Your task to perform on an android device: turn on airplane mode Image 0: 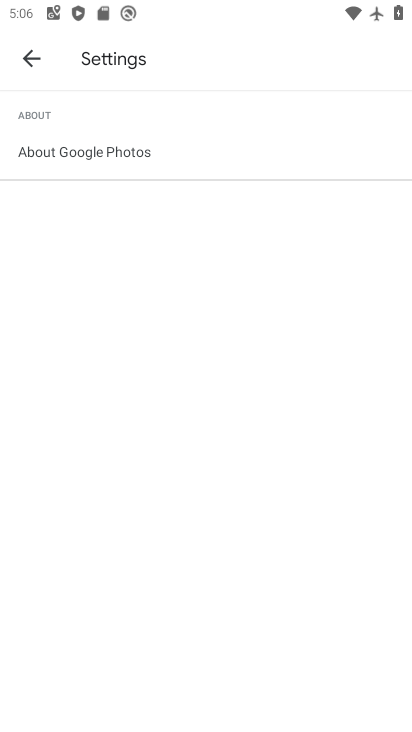
Step 0: press home button
Your task to perform on an android device: turn on airplane mode Image 1: 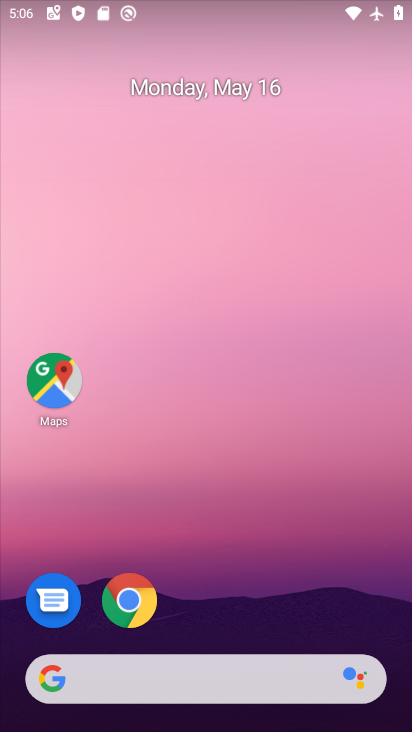
Step 1: drag from (189, 627) to (116, 14)
Your task to perform on an android device: turn on airplane mode Image 2: 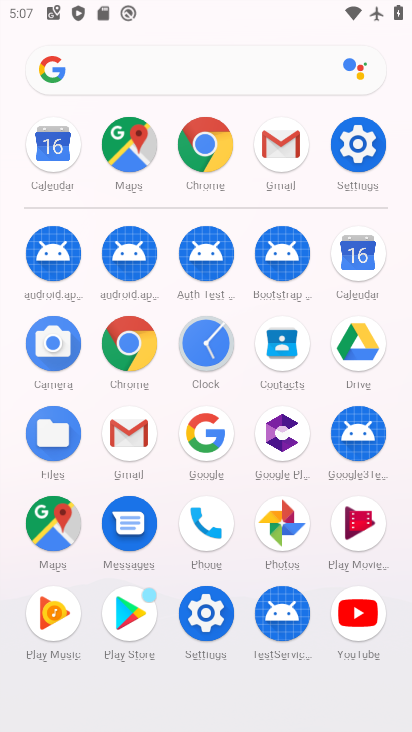
Step 2: click (349, 130)
Your task to perform on an android device: turn on airplane mode Image 3: 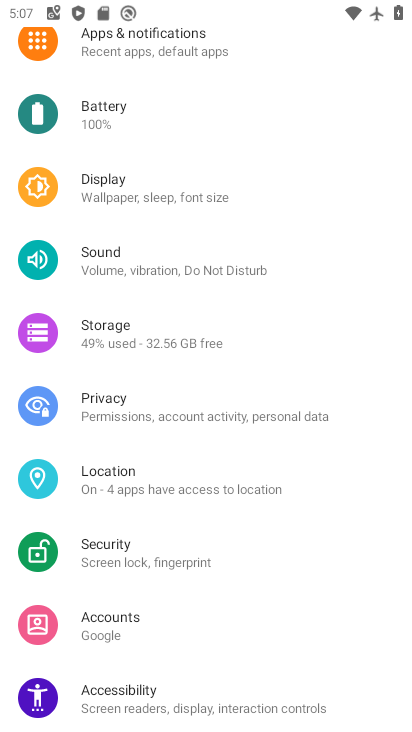
Step 3: drag from (147, 155) to (161, 623)
Your task to perform on an android device: turn on airplane mode Image 4: 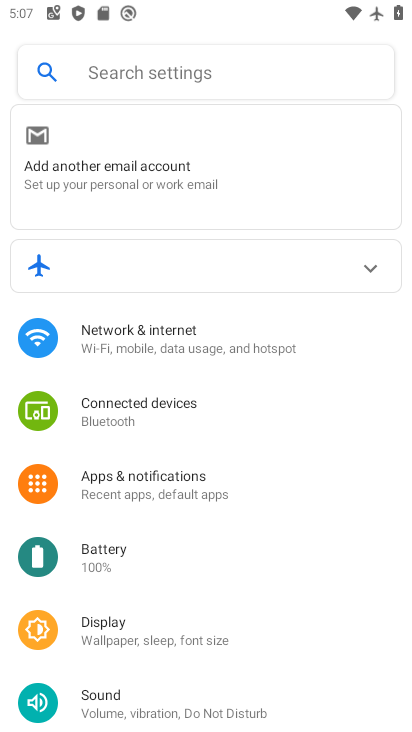
Step 4: click (161, 354)
Your task to perform on an android device: turn on airplane mode Image 5: 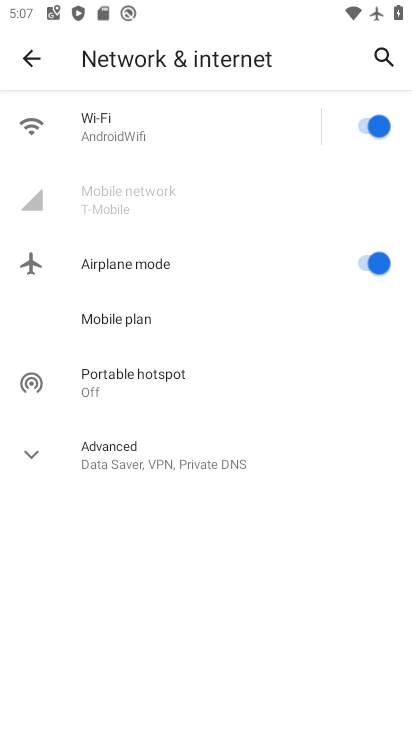
Step 5: task complete